Your task to perform on an android device: set the stopwatch Image 0: 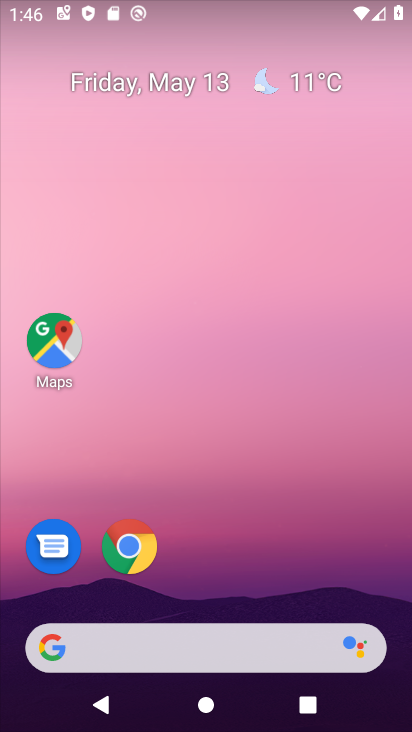
Step 0: drag from (172, 595) to (153, 86)
Your task to perform on an android device: set the stopwatch Image 1: 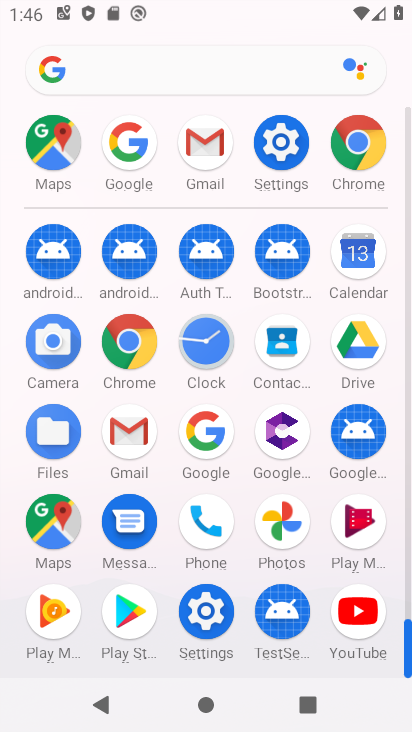
Step 1: click (223, 330)
Your task to perform on an android device: set the stopwatch Image 2: 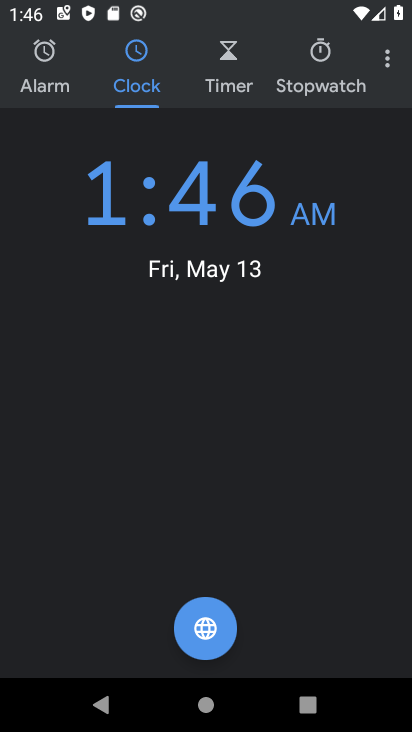
Step 2: click (323, 64)
Your task to perform on an android device: set the stopwatch Image 3: 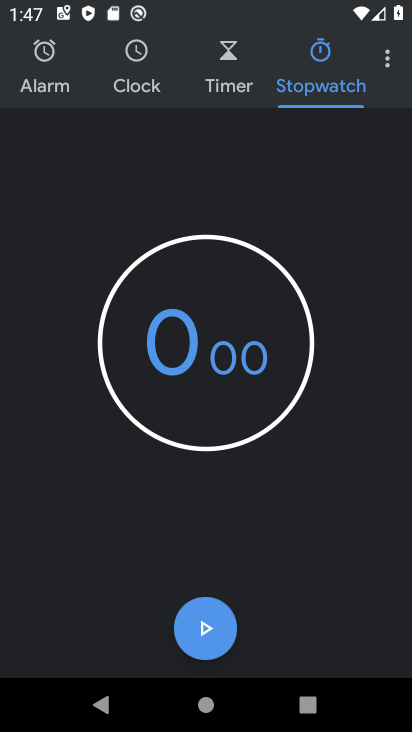
Step 3: click (220, 632)
Your task to perform on an android device: set the stopwatch Image 4: 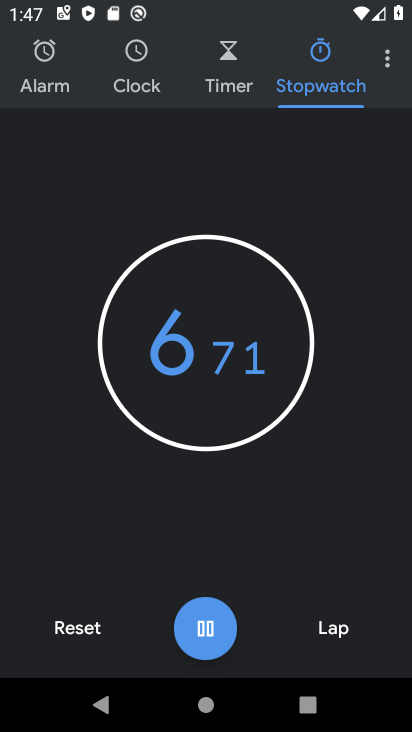
Step 4: task complete